Your task to perform on an android device: check storage Image 0: 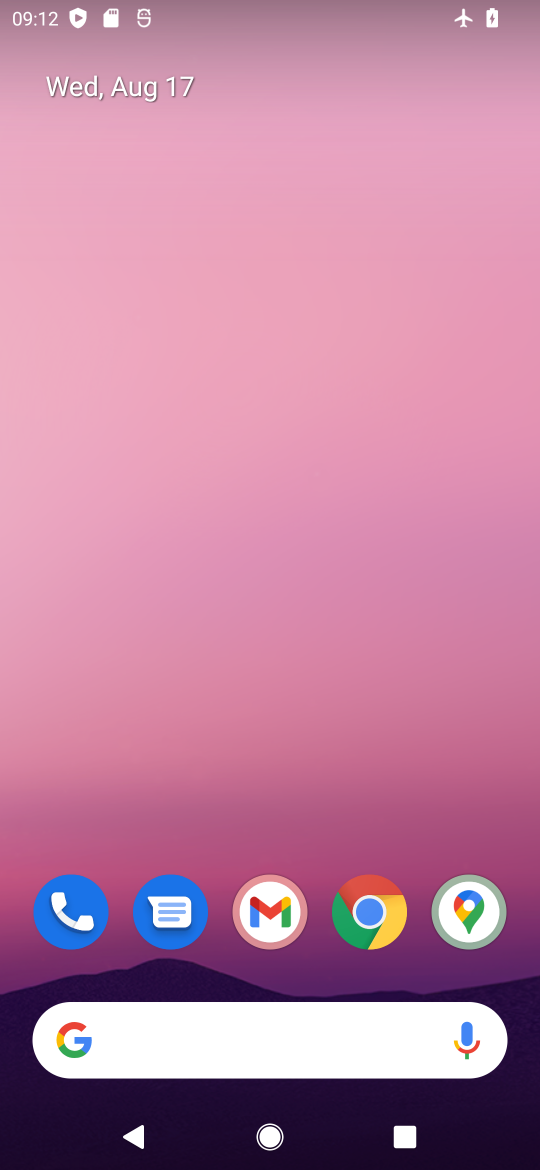
Step 0: drag from (316, 986) to (309, 239)
Your task to perform on an android device: check storage Image 1: 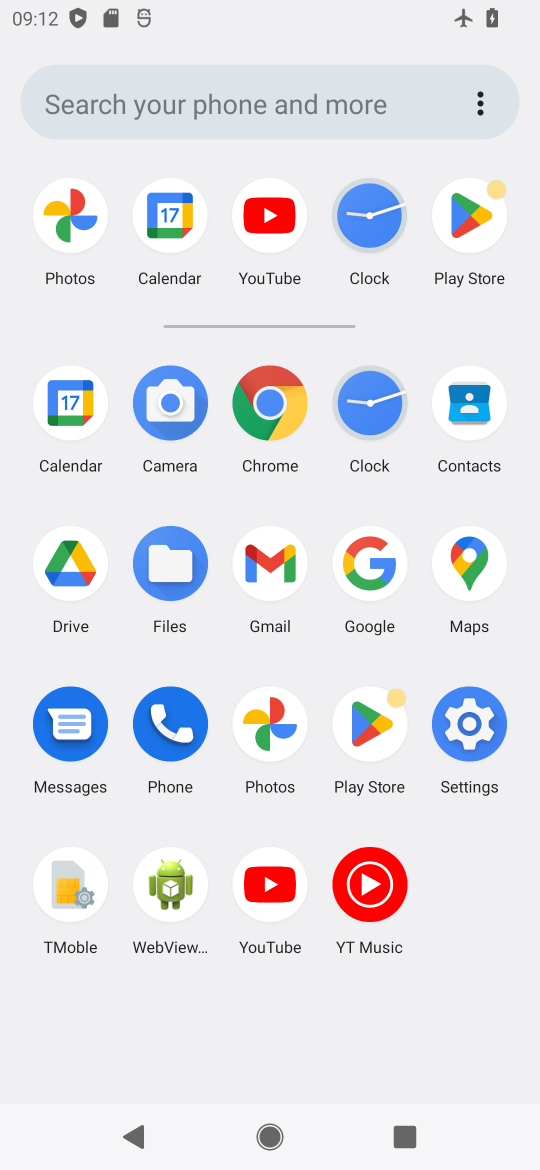
Step 1: click (484, 718)
Your task to perform on an android device: check storage Image 2: 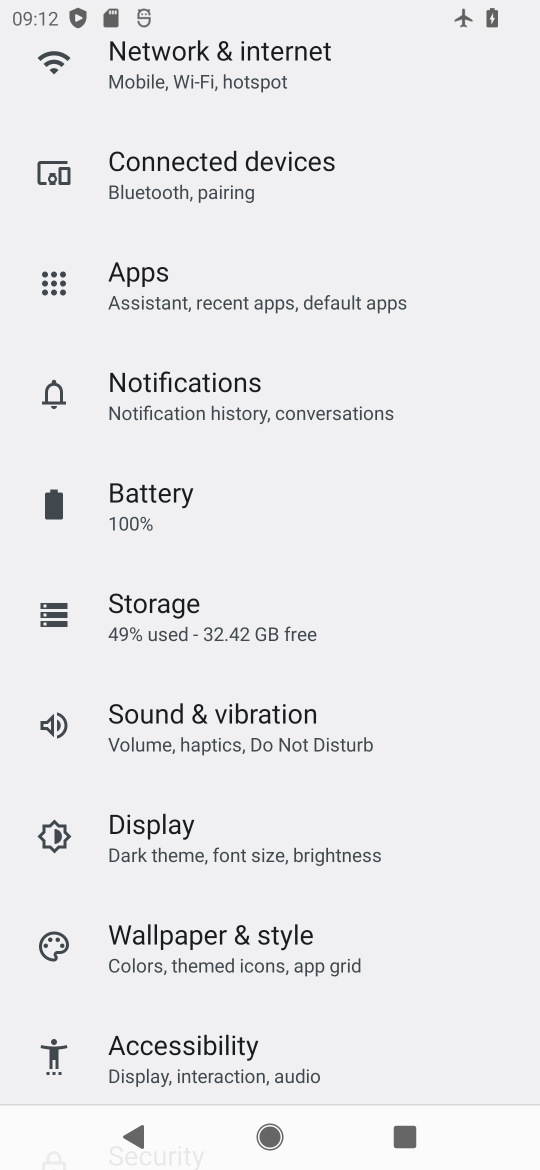
Step 2: click (170, 637)
Your task to perform on an android device: check storage Image 3: 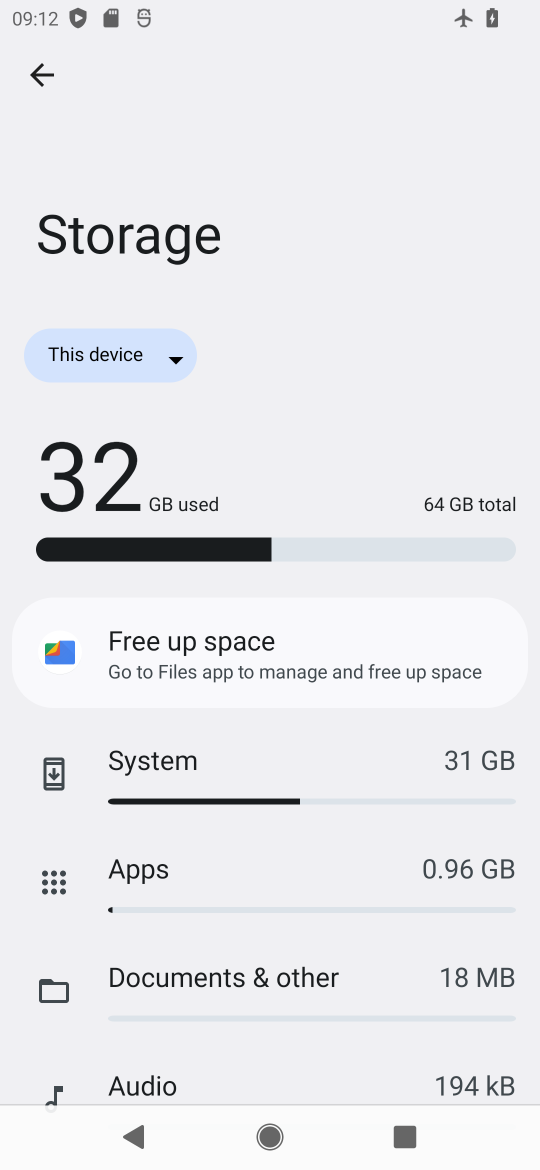
Step 3: task complete